Your task to perform on an android device: Open wifi settings Image 0: 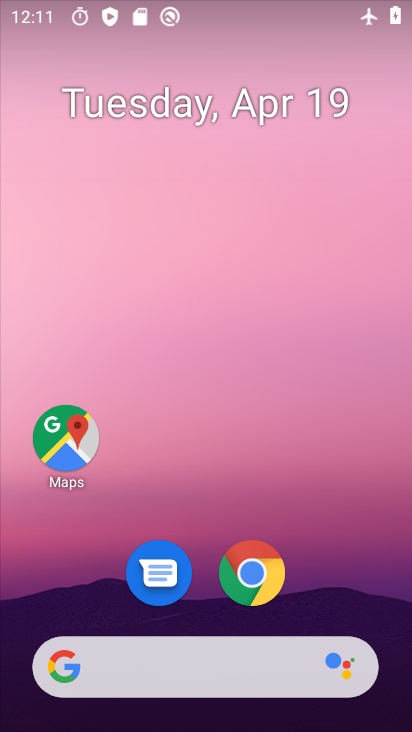
Step 0: drag from (333, 592) to (352, 132)
Your task to perform on an android device: Open wifi settings Image 1: 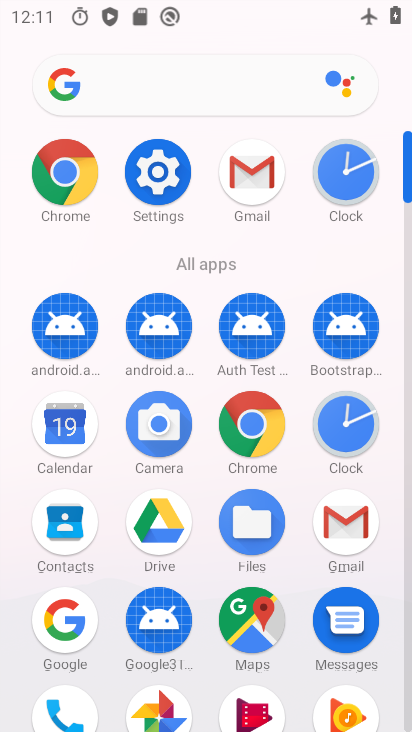
Step 1: click (149, 182)
Your task to perform on an android device: Open wifi settings Image 2: 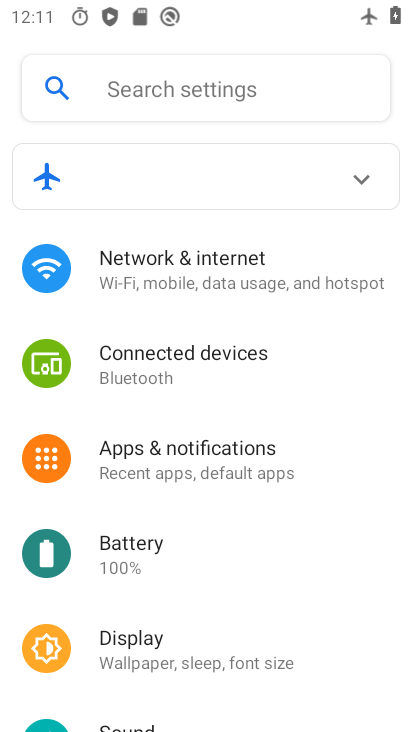
Step 2: click (163, 280)
Your task to perform on an android device: Open wifi settings Image 3: 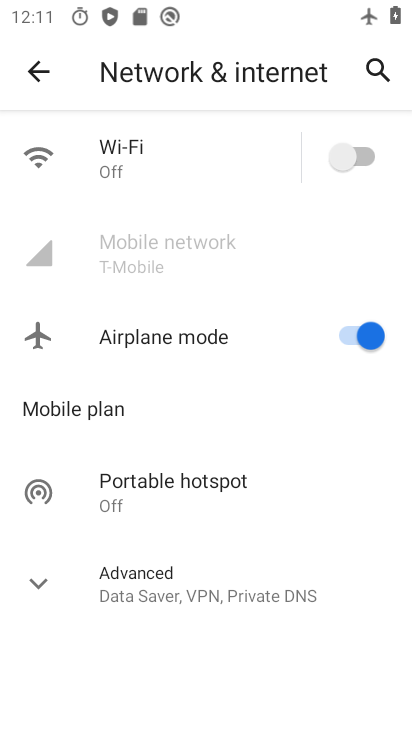
Step 3: click (163, 181)
Your task to perform on an android device: Open wifi settings Image 4: 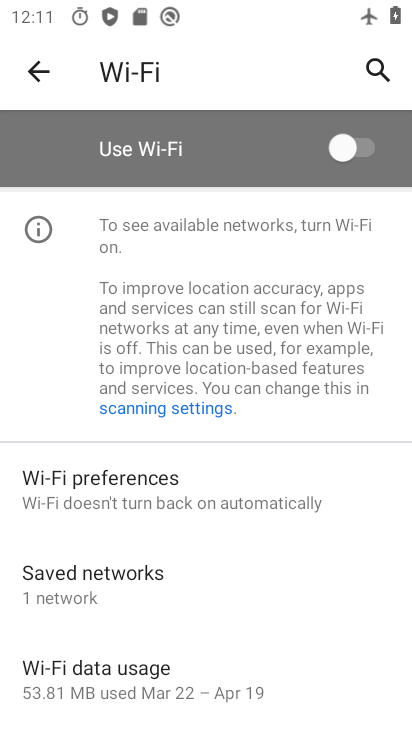
Step 4: task complete